Your task to perform on an android device: See recent photos Image 0: 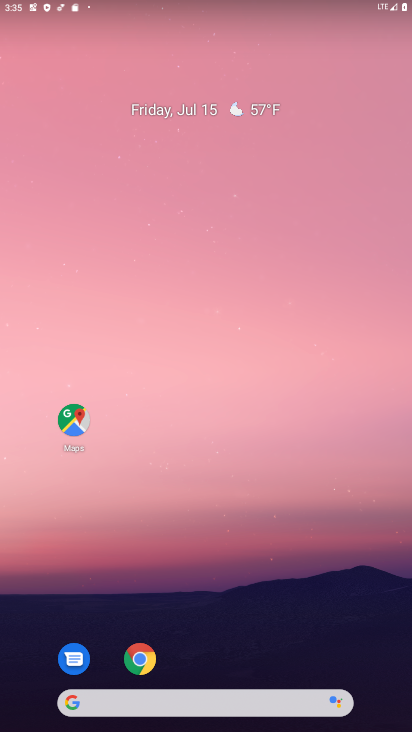
Step 0: drag from (190, 689) to (218, 264)
Your task to perform on an android device: See recent photos Image 1: 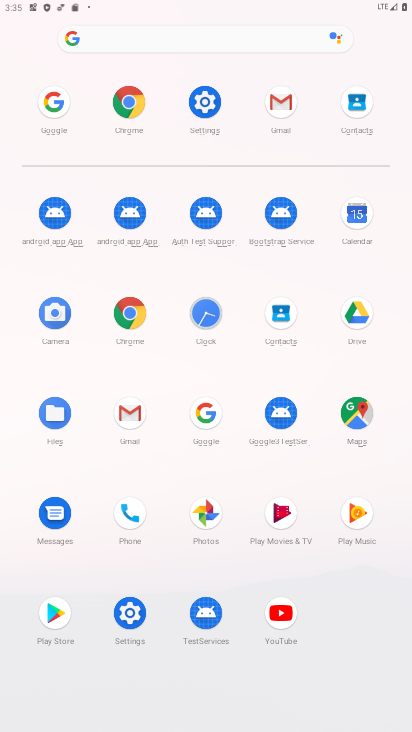
Step 1: click (214, 524)
Your task to perform on an android device: See recent photos Image 2: 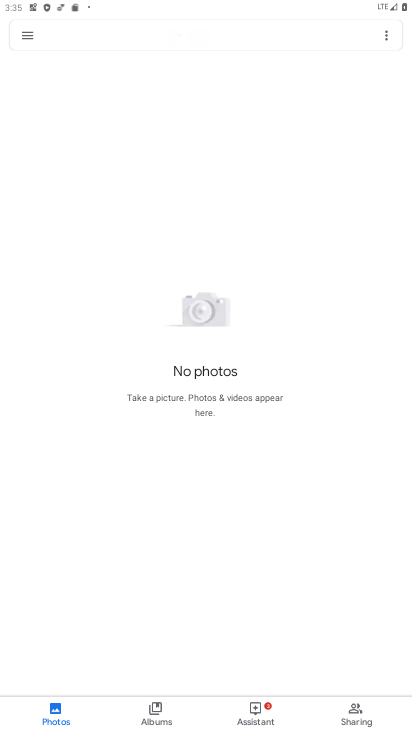
Step 2: task complete